Your task to perform on an android device: Open the Play Movies app and select the watchlist tab. Image 0: 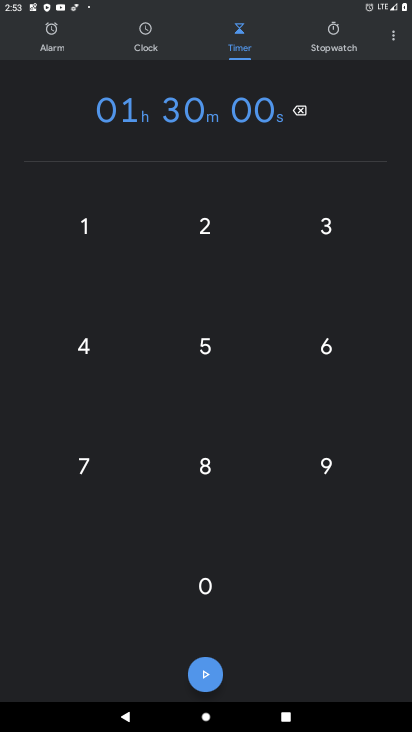
Step 0: press home button
Your task to perform on an android device: Open the Play Movies app and select the watchlist tab. Image 1: 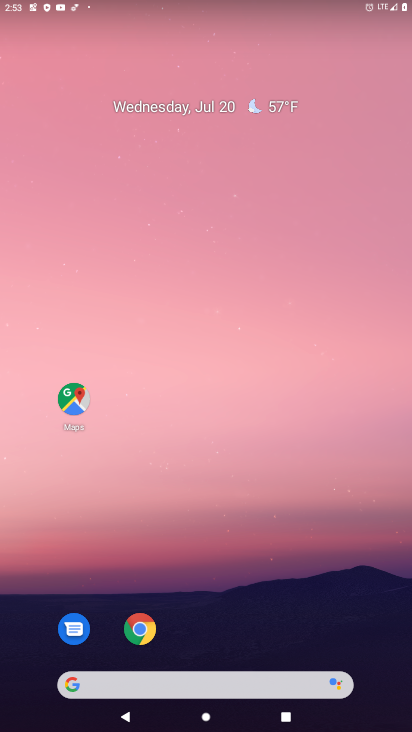
Step 1: drag from (376, 660) to (321, 117)
Your task to perform on an android device: Open the Play Movies app and select the watchlist tab. Image 2: 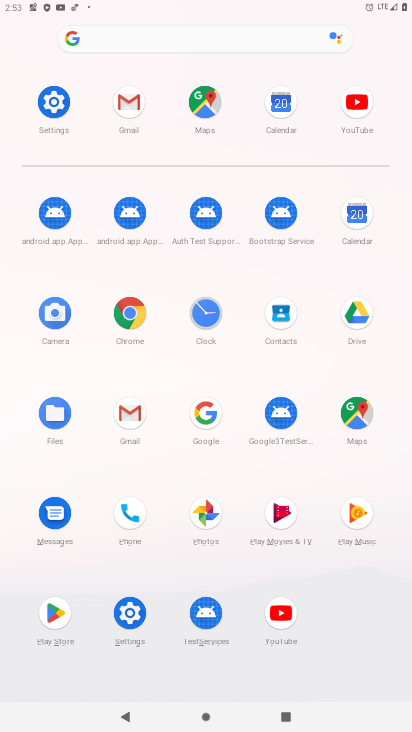
Step 2: click (284, 512)
Your task to perform on an android device: Open the Play Movies app and select the watchlist tab. Image 3: 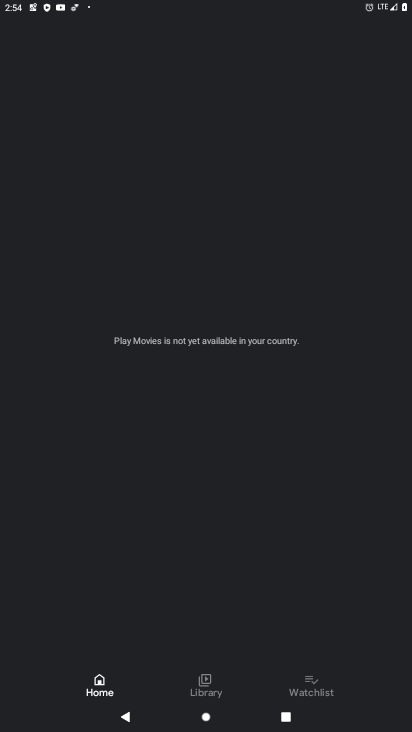
Step 3: click (306, 689)
Your task to perform on an android device: Open the Play Movies app and select the watchlist tab. Image 4: 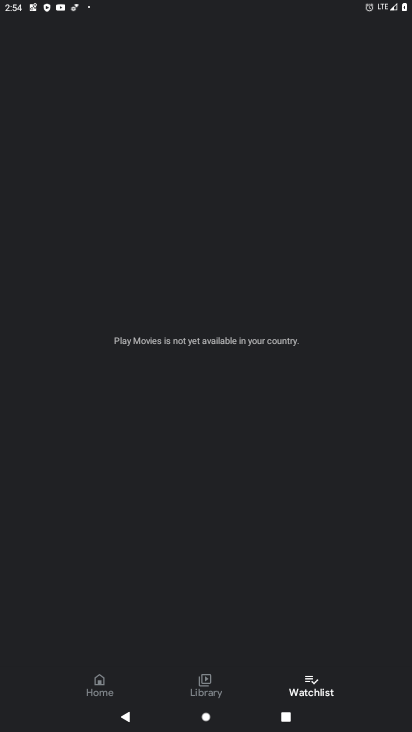
Step 4: task complete